Your task to perform on an android device: turn pop-ups on in chrome Image 0: 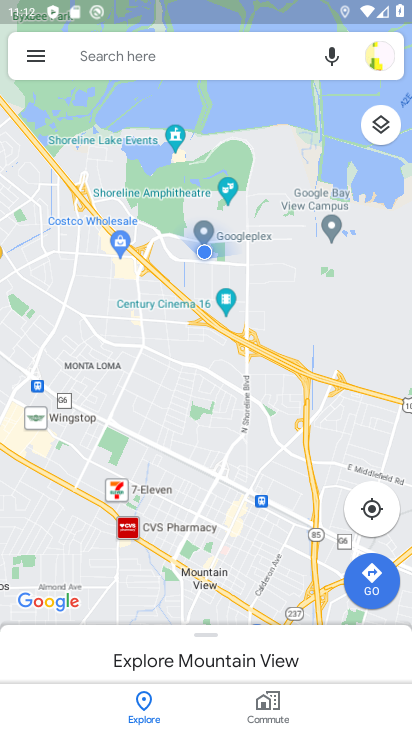
Step 0: press home button
Your task to perform on an android device: turn pop-ups on in chrome Image 1: 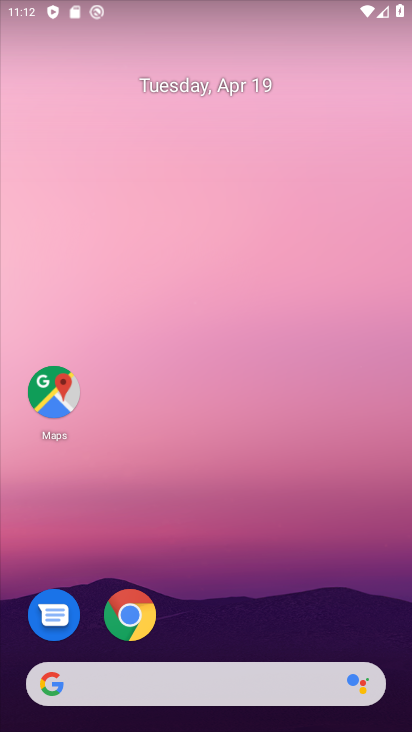
Step 1: click (131, 619)
Your task to perform on an android device: turn pop-ups on in chrome Image 2: 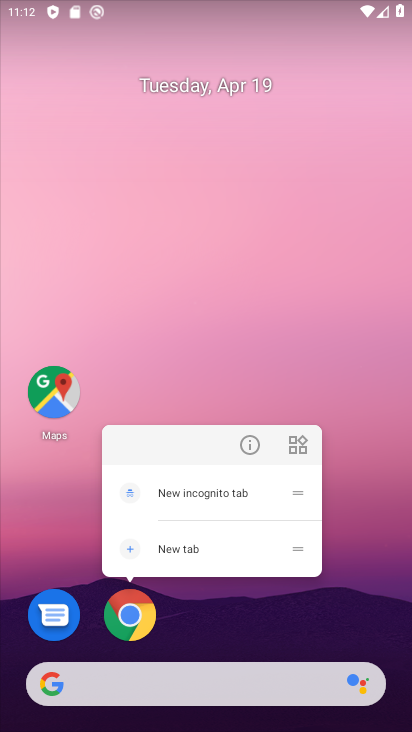
Step 2: click (131, 619)
Your task to perform on an android device: turn pop-ups on in chrome Image 3: 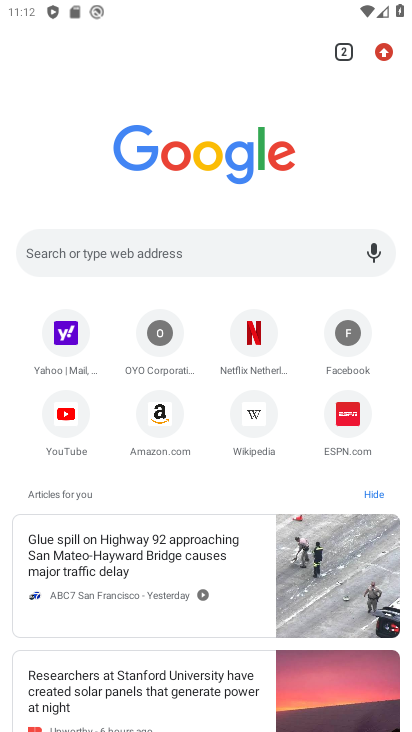
Step 3: click (381, 51)
Your task to perform on an android device: turn pop-ups on in chrome Image 4: 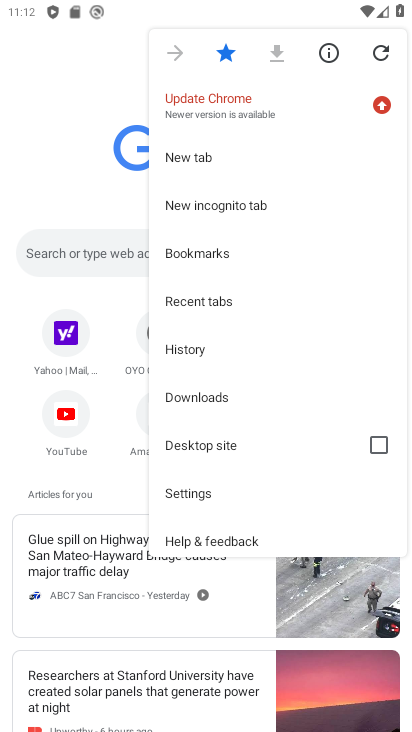
Step 4: click (212, 490)
Your task to perform on an android device: turn pop-ups on in chrome Image 5: 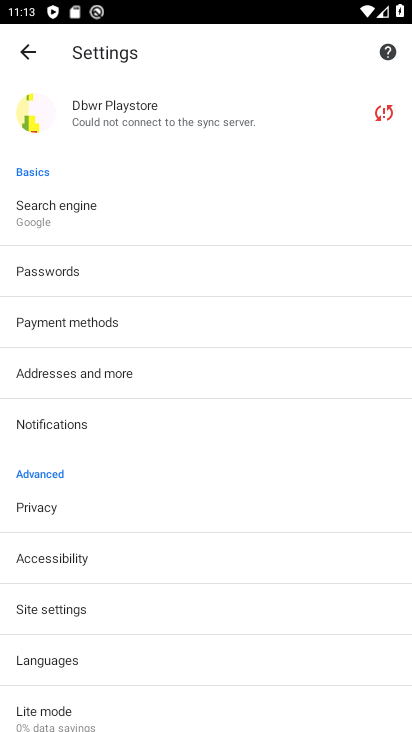
Step 5: click (85, 603)
Your task to perform on an android device: turn pop-ups on in chrome Image 6: 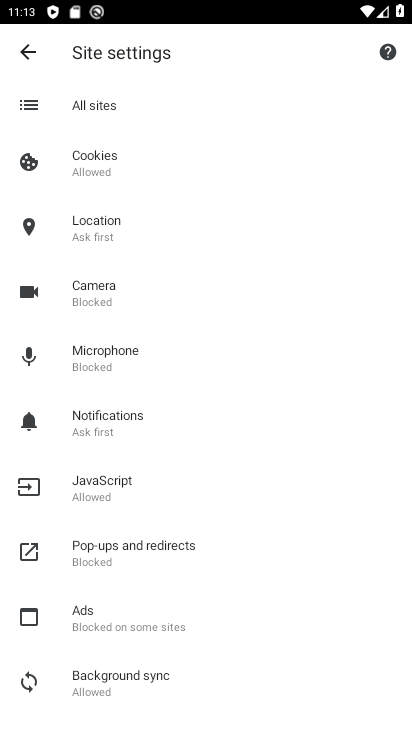
Step 6: click (107, 557)
Your task to perform on an android device: turn pop-ups on in chrome Image 7: 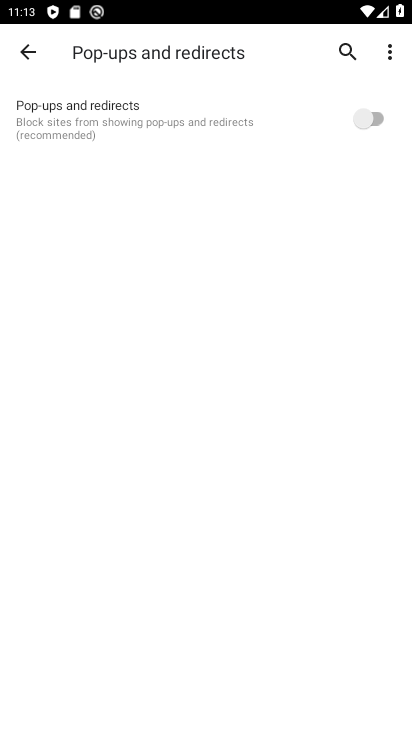
Step 7: click (370, 117)
Your task to perform on an android device: turn pop-ups on in chrome Image 8: 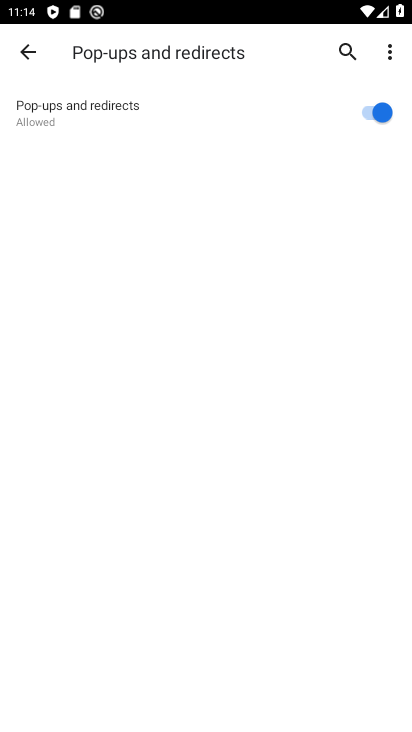
Step 8: task complete